Your task to perform on an android device: create a new album in the google photos Image 0: 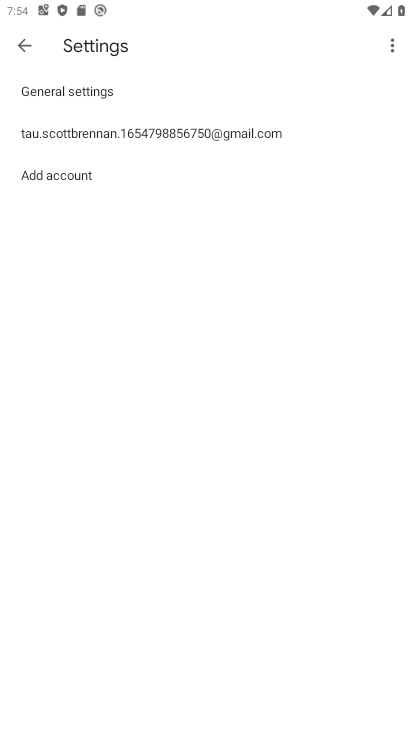
Step 0: press home button
Your task to perform on an android device: create a new album in the google photos Image 1: 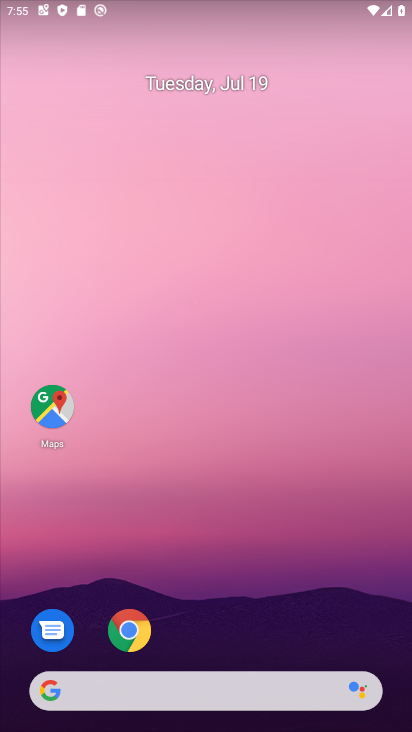
Step 1: drag from (328, 635) to (264, 81)
Your task to perform on an android device: create a new album in the google photos Image 2: 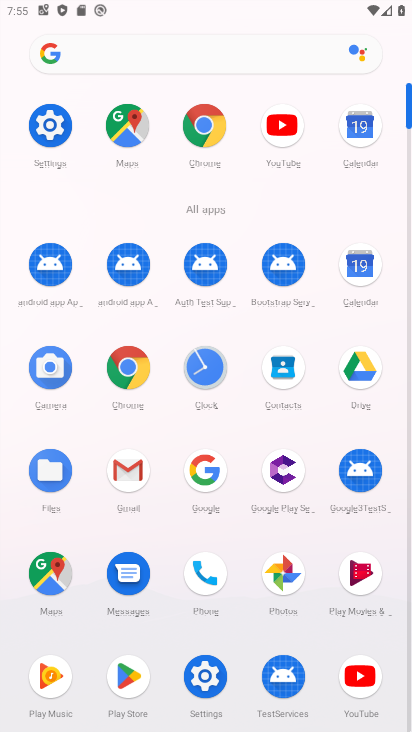
Step 2: click (289, 566)
Your task to perform on an android device: create a new album in the google photos Image 3: 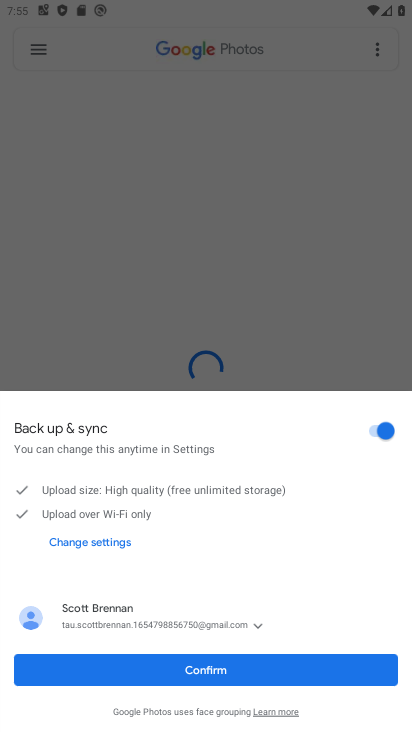
Step 3: click (264, 669)
Your task to perform on an android device: create a new album in the google photos Image 4: 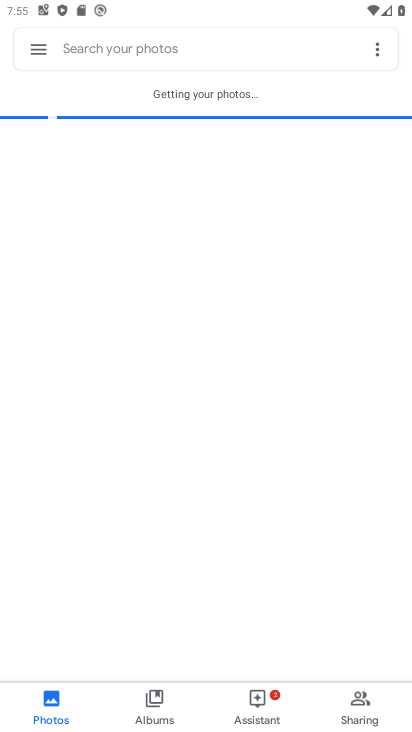
Step 4: click (175, 702)
Your task to perform on an android device: create a new album in the google photos Image 5: 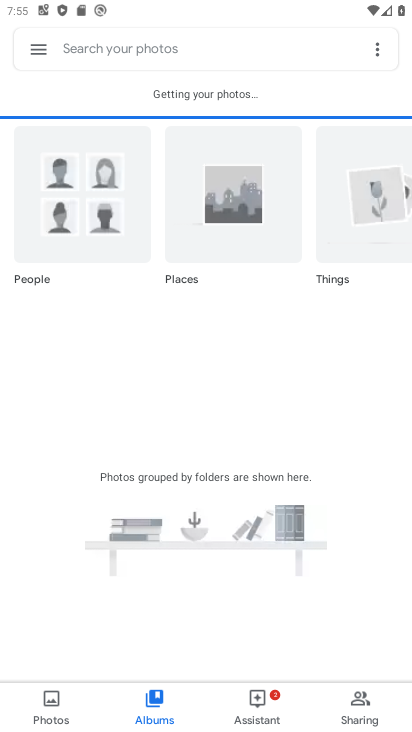
Step 5: click (175, 702)
Your task to perform on an android device: create a new album in the google photos Image 6: 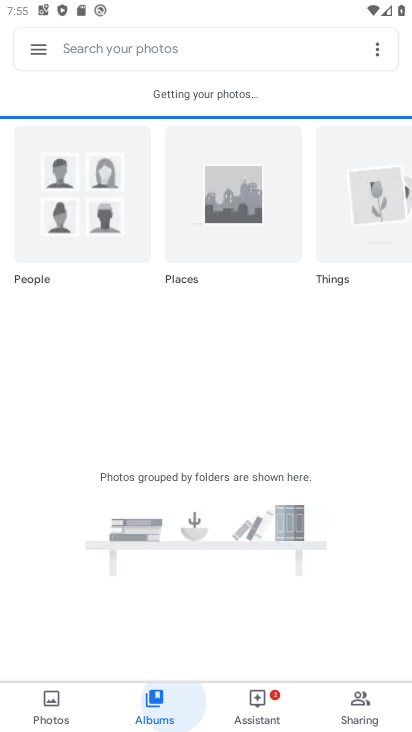
Step 6: click (175, 702)
Your task to perform on an android device: create a new album in the google photos Image 7: 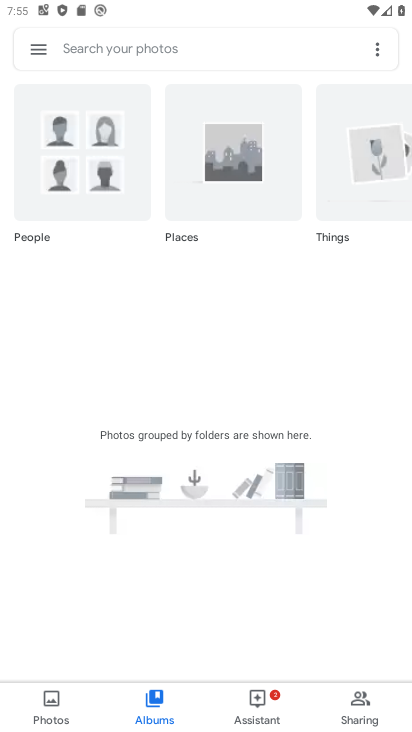
Step 7: click (393, 34)
Your task to perform on an android device: create a new album in the google photos Image 8: 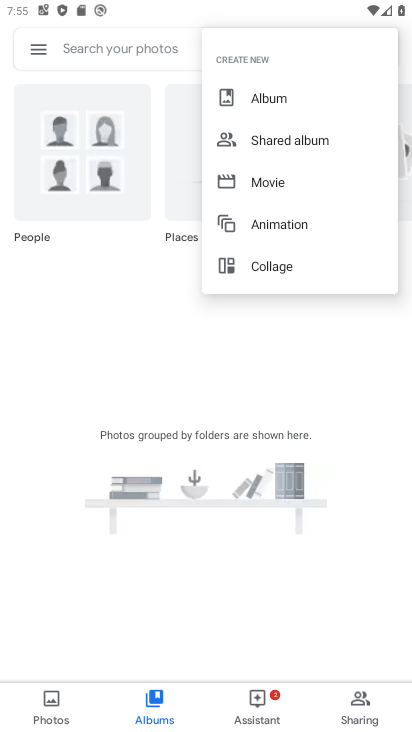
Step 8: click (289, 92)
Your task to perform on an android device: create a new album in the google photos Image 9: 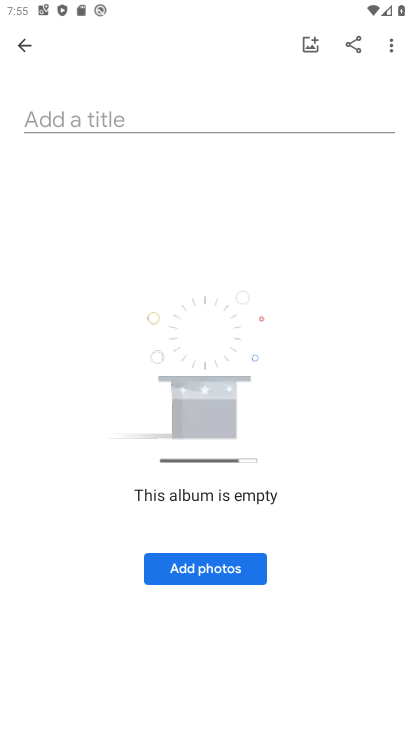
Step 9: click (277, 120)
Your task to perform on an android device: create a new album in the google photos Image 10: 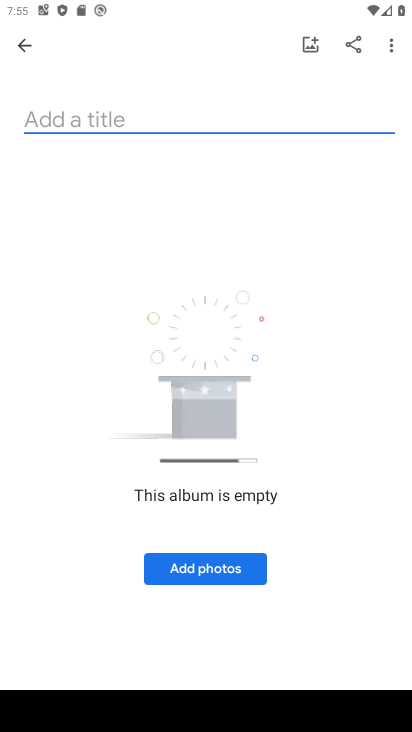
Step 10: type "jomany"
Your task to perform on an android device: create a new album in the google photos Image 11: 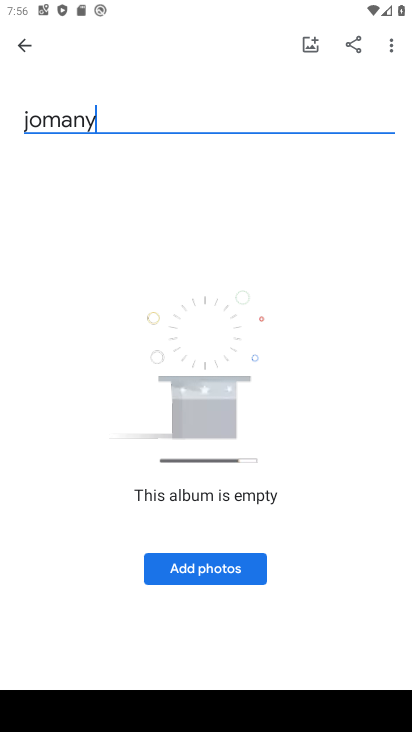
Step 11: click (15, 43)
Your task to perform on an android device: create a new album in the google photos Image 12: 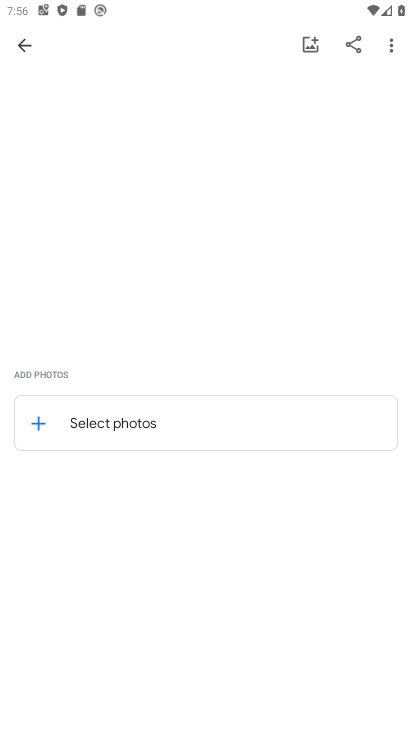
Step 12: click (15, 43)
Your task to perform on an android device: create a new album in the google photos Image 13: 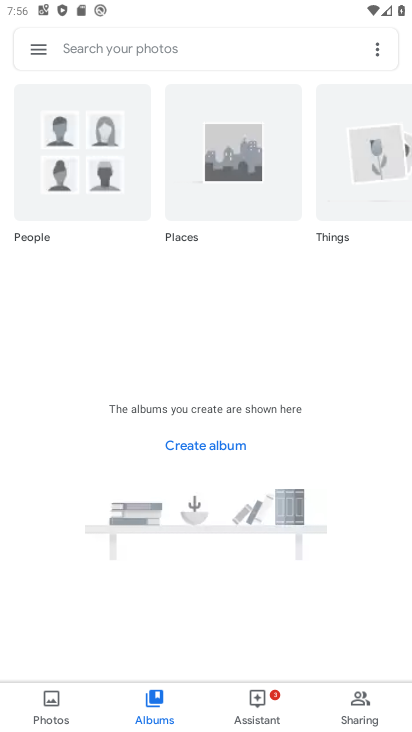
Step 13: task complete